Your task to perform on an android device: Open calendar and show me the first week of next month Image 0: 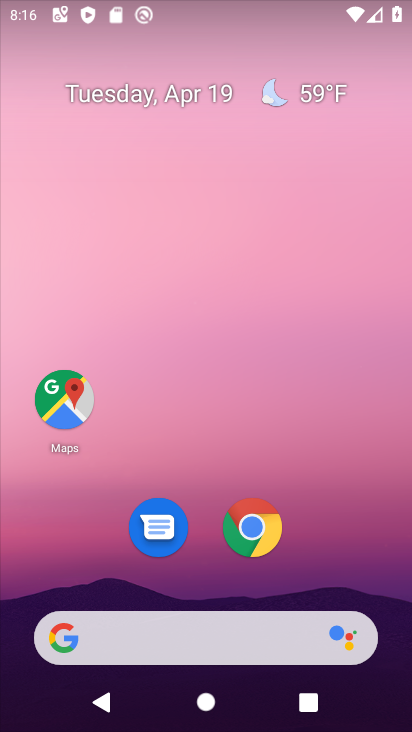
Step 0: click (217, 208)
Your task to perform on an android device: Open calendar and show me the first week of next month Image 1: 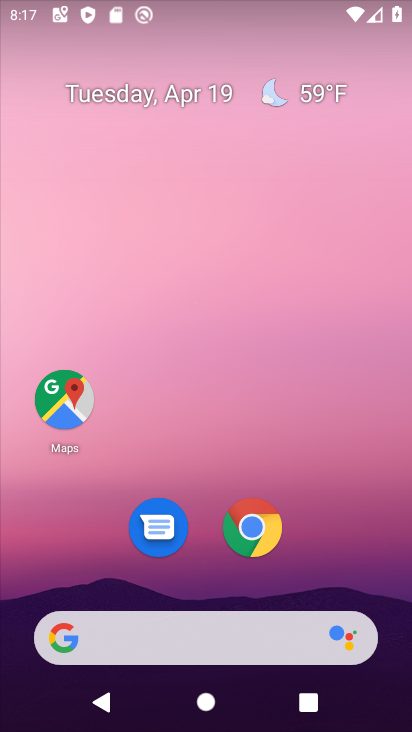
Step 1: drag from (203, 552) to (220, 178)
Your task to perform on an android device: Open calendar and show me the first week of next month Image 2: 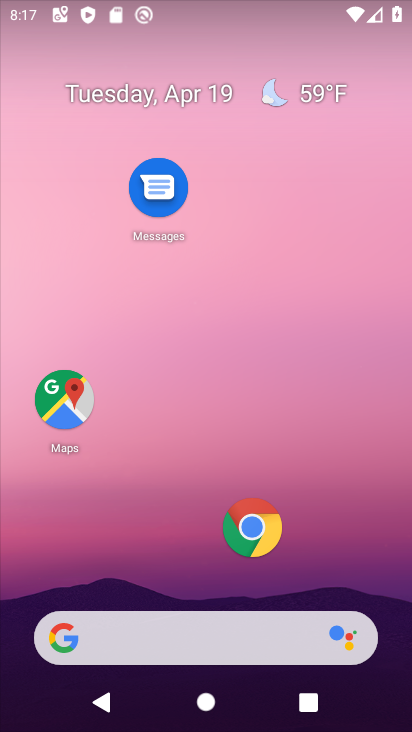
Step 2: drag from (201, 580) to (269, 97)
Your task to perform on an android device: Open calendar and show me the first week of next month Image 3: 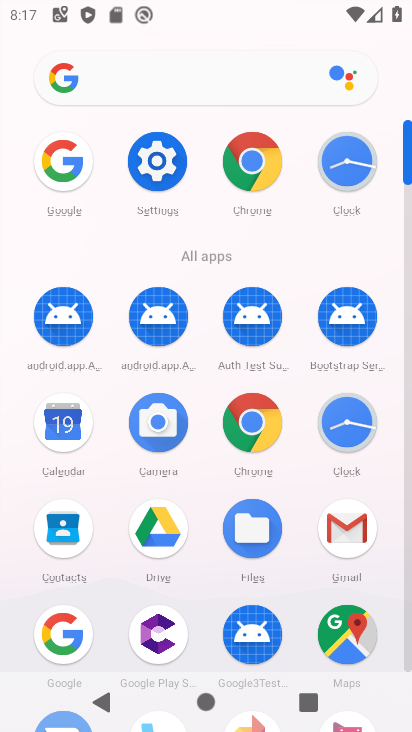
Step 3: click (70, 410)
Your task to perform on an android device: Open calendar and show me the first week of next month Image 4: 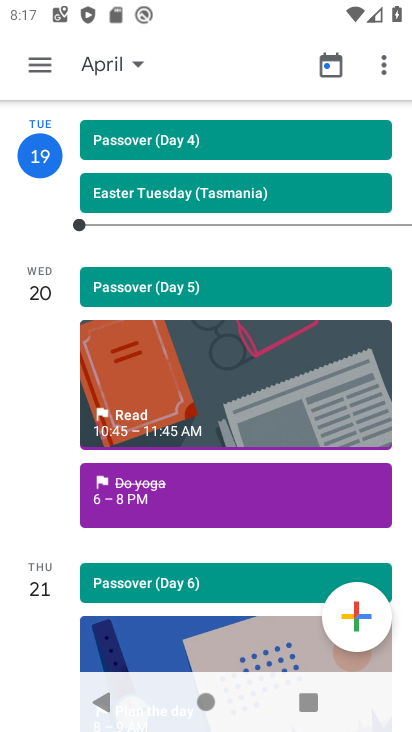
Step 4: click (129, 59)
Your task to perform on an android device: Open calendar and show me the first week of next month Image 5: 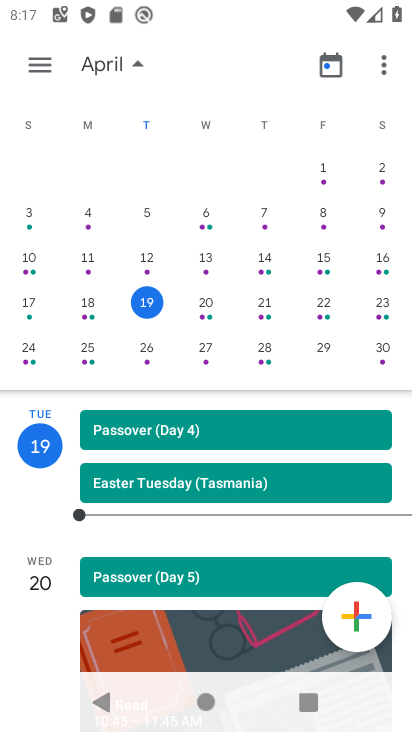
Step 5: drag from (345, 263) to (40, 208)
Your task to perform on an android device: Open calendar and show me the first week of next month Image 6: 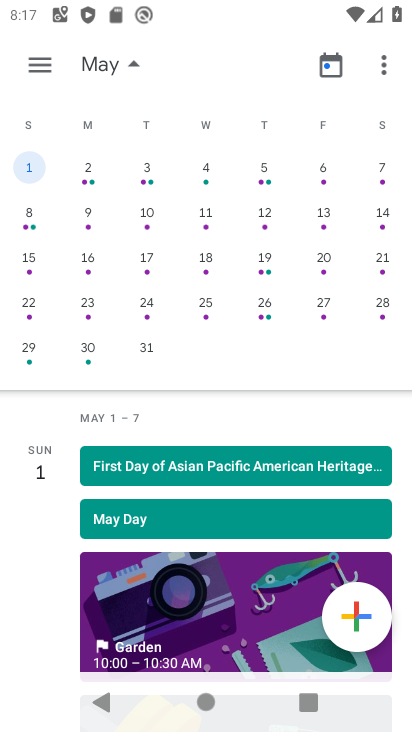
Step 6: click (92, 177)
Your task to perform on an android device: Open calendar and show me the first week of next month Image 7: 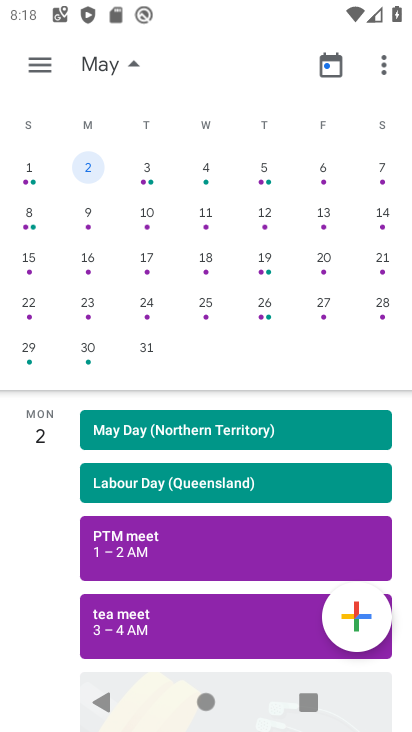
Step 7: task complete